Your task to perform on an android device: Go to sound settings Image 0: 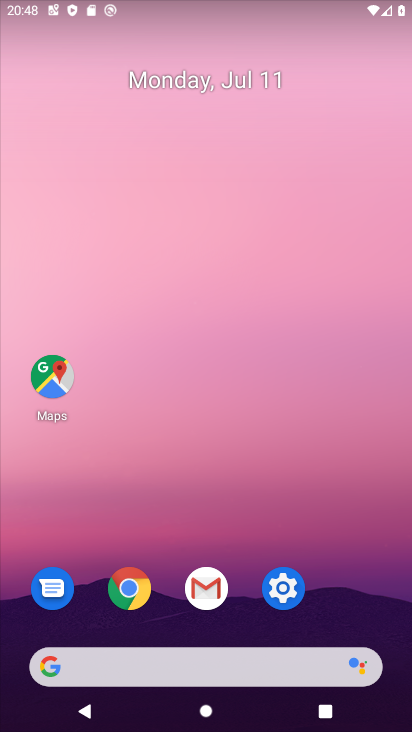
Step 0: click (280, 595)
Your task to perform on an android device: Go to sound settings Image 1: 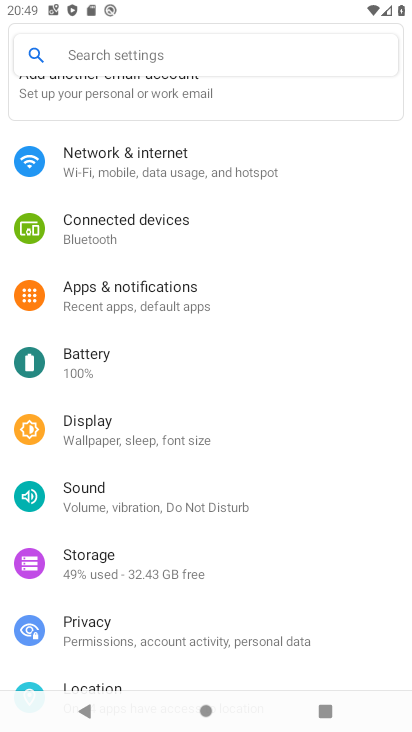
Step 1: click (104, 499)
Your task to perform on an android device: Go to sound settings Image 2: 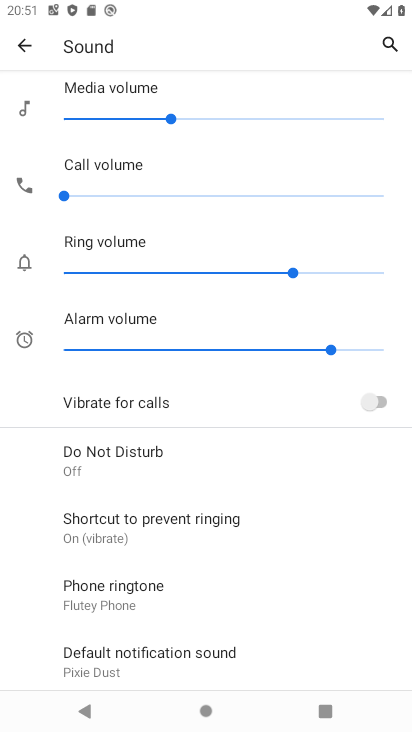
Step 2: task complete